Your task to perform on an android device: Open Wikipedia Image 0: 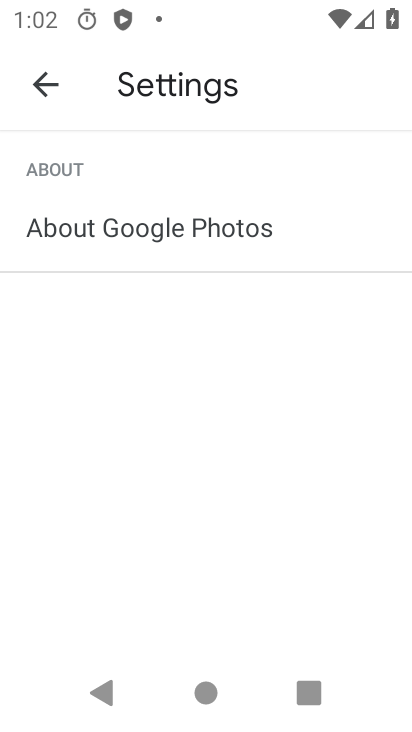
Step 0: press home button
Your task to perform on an android device: Open Wikipedia Image 1: 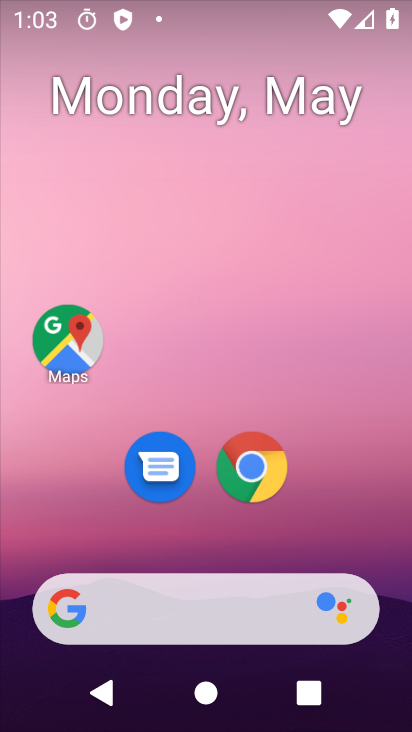
Step 1: drag from (395, 697) to (389, 576)
Your task to perform on an android device: Open Wikipedia Image 2: 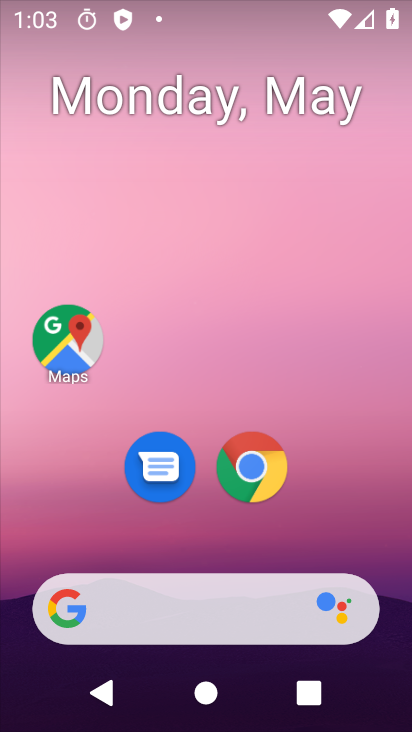
Step 2: click (261, 462)
Your task to perform on an android device: Open Wikipedia Image 3: 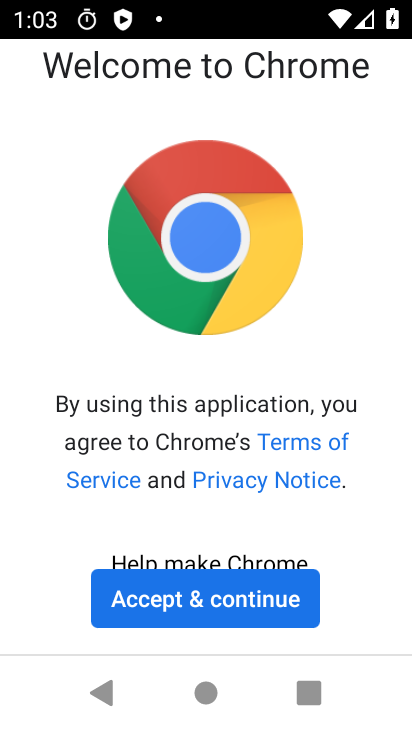
Step 3: click (215, 597)
Your task to perform on an android device: Open Wikipedia Image 4: 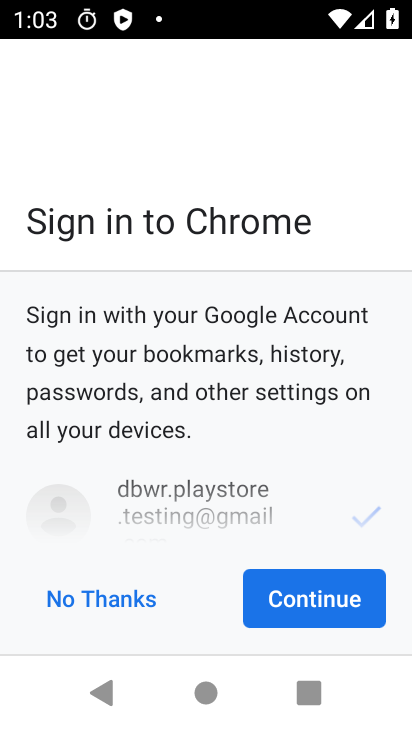
Step 4: click (288, 588)
Your task to perform on an android device: Open Wikipedia Image 5: 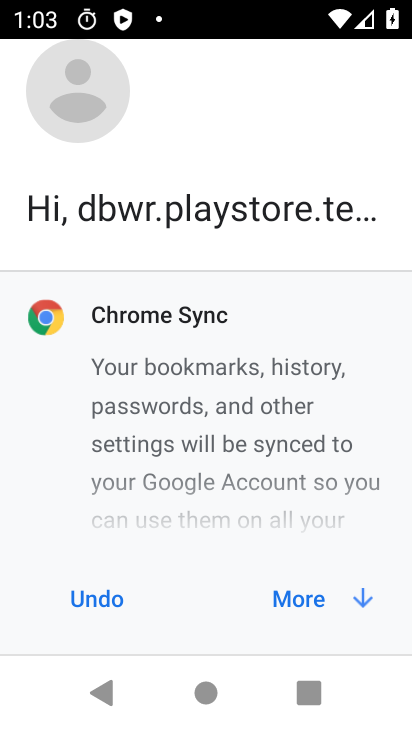
Step 5: click (289, 594)
Your task to perform on an android device: Open Wikipedia Image 6: 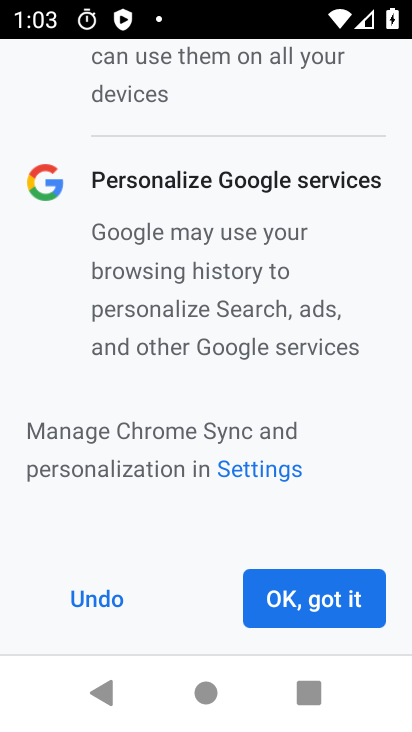
Step 6: click (323, 597)
Your task to perform on an android device: Open Wikipedia Image 7: 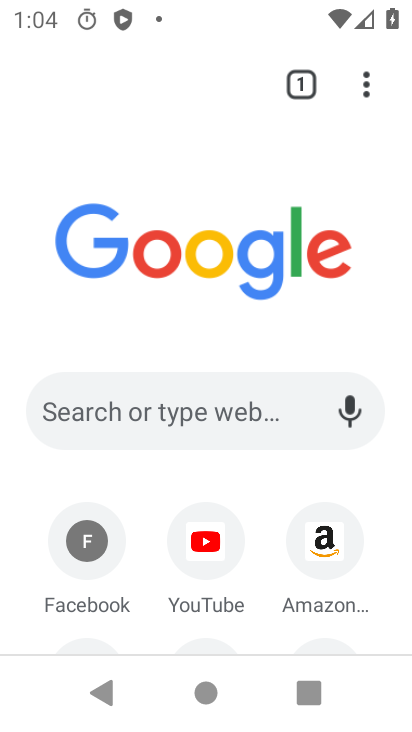
Step 7: click (368, 87)
Your task to perform on an android device: Open Wikipedia Image 8: 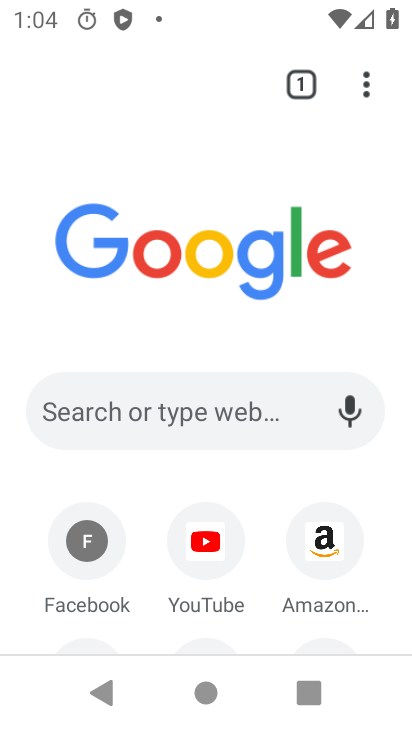
Step 8: click (257, 407)
Your task to perform on an android device: Open Wikipedia Image 9: 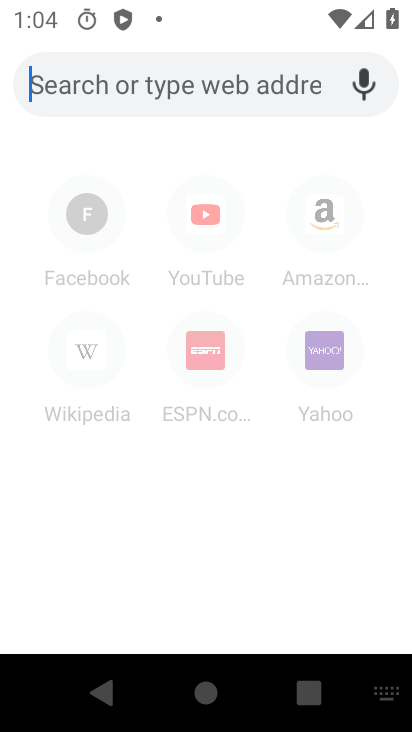
Step 9: type "Wikipedia"
Your task to perform on an android device: Open Wikipedia Image 10: 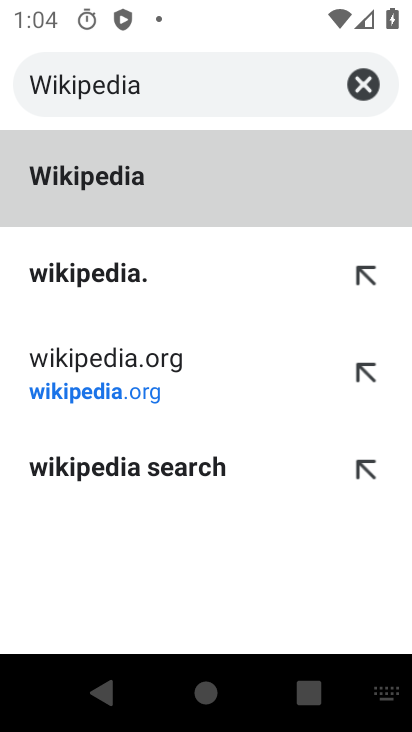
Step 10: click (103, 264)
Your task to perform on an android device: Open Wikipedia Image 11: 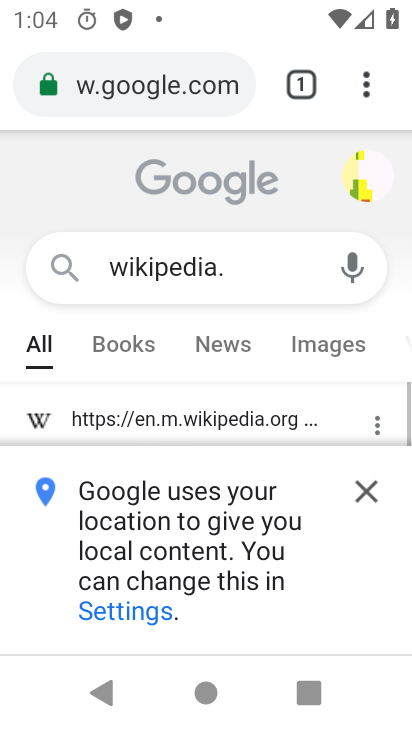
Step 11: task complete